Your task to perform on an android device: Open calendar and show me the first week of next month Image 0: 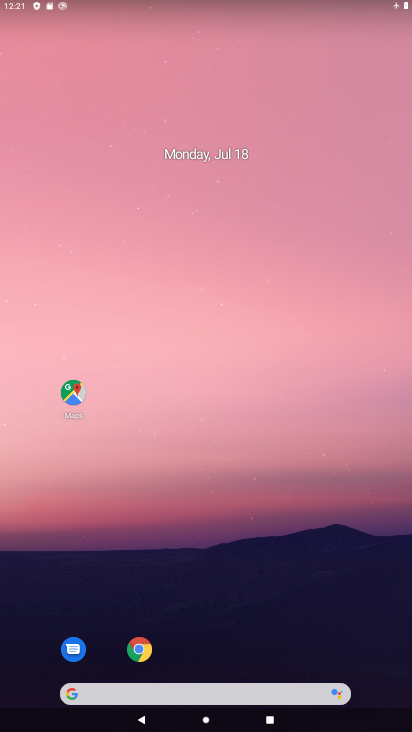
Step 0: drag from (35, 689) to (263, 134)
Your task to perform on an android device: Open calendar and show me the first week of next month Image 1: 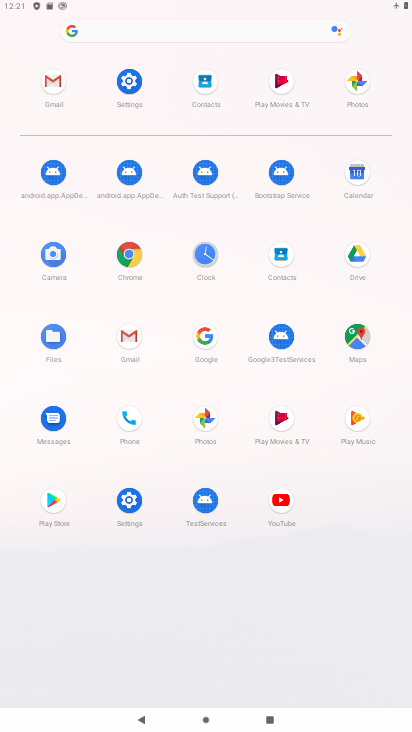
Step 1: click (360, 174)
Your task to perform on an android device: Open calendar and show me the first week of next month Image 2: 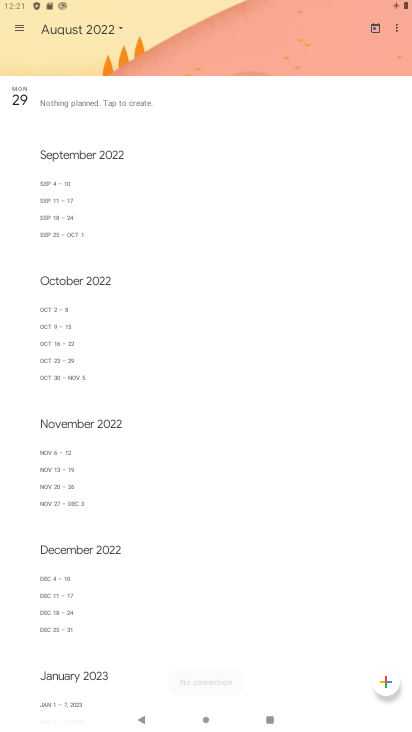
Step 2: click (81, 25)
Your task to perform on an android device: Open calendar and show me the first week of next month Image 3: 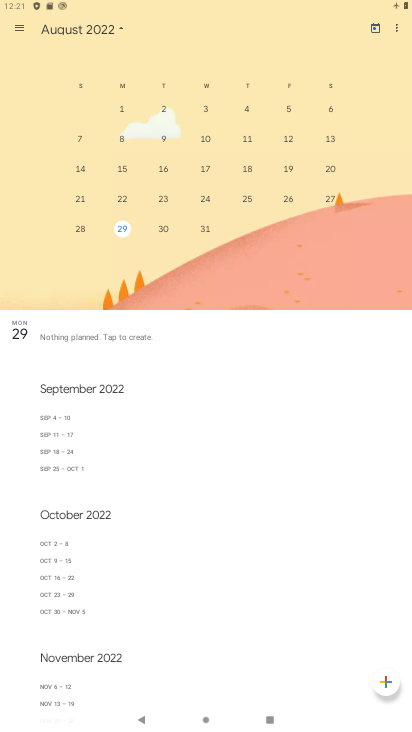
Step 3: click (120, 109)
Your task to perform on an android device: Open calendar and show me the first week of next month Image 4: 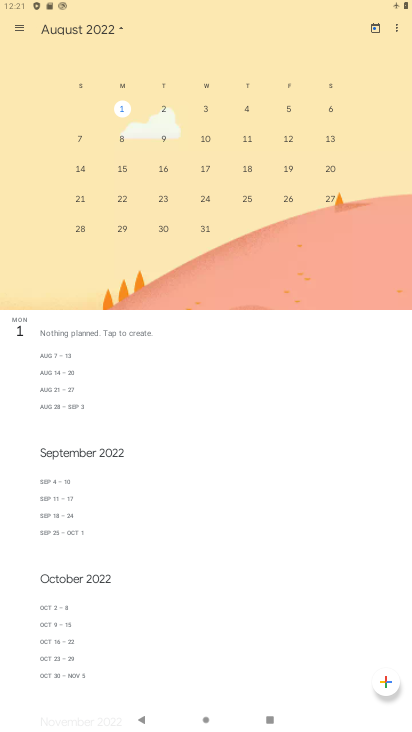
Step 4: task complete